Your task to perform on an android device: Open accessibility settings Image 0: 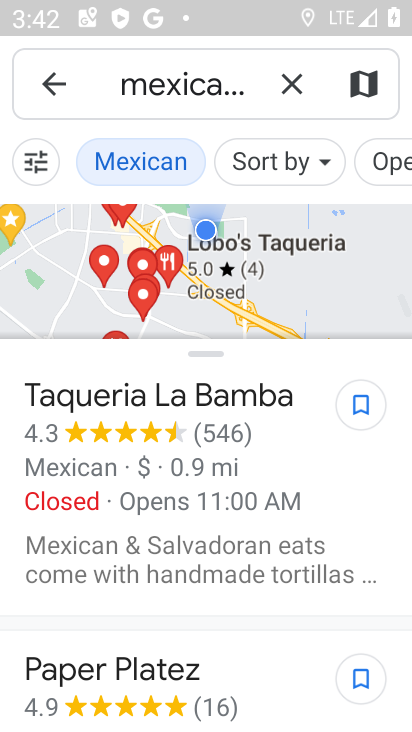
Step 0: press home button
Your task to perform on an android device: Open accessibility settings Image 1: 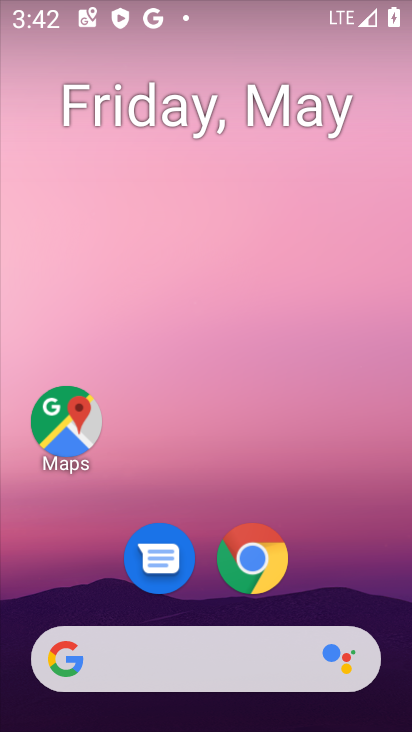
Step 1: drag from (170, 677) to (253, 190)
Your task to perform on an android device: Open accessibility settings Image 2: 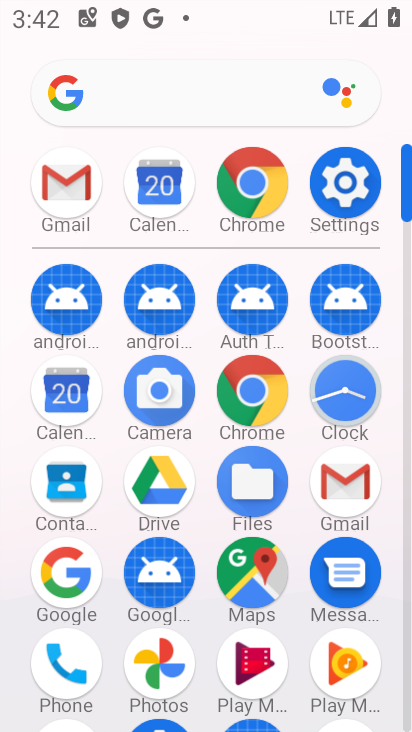
Step 2: click (334, 190)
Your task to perform on an android device: Open accessibility settings Image 3: 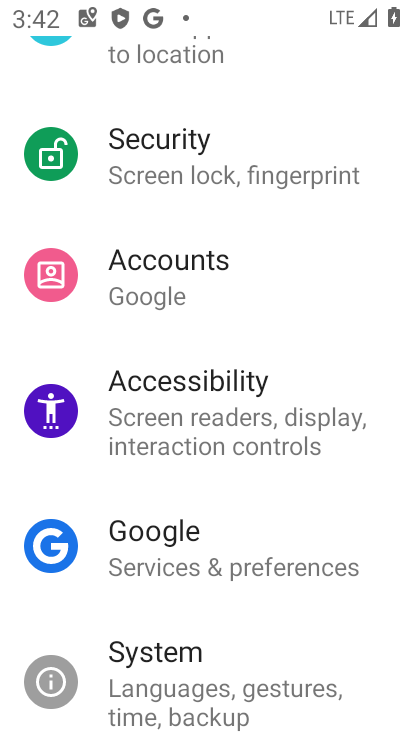
Step 3: click (213, 384)
Your task to perform on an android device: Open accessibility settings Image 4: 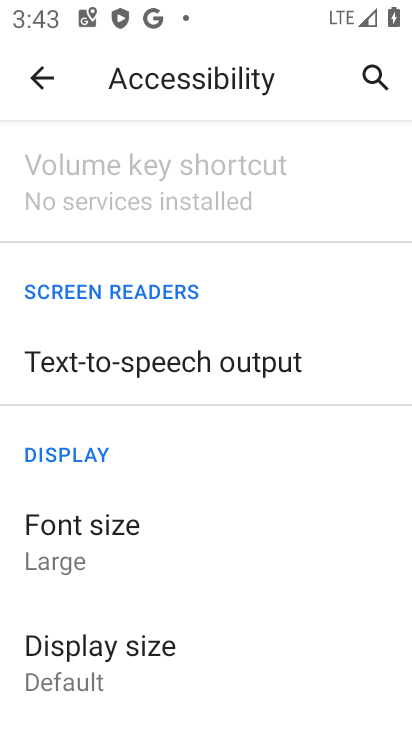
Step 4: task complete